Your task to perform on an android device: turn on the 24-hour format for clock Image 0: 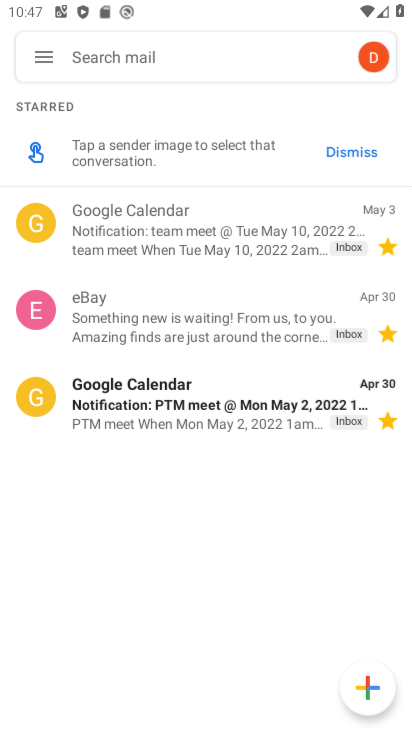
Step 0: drag from (247, 639) to (402, 412)
Your task to perform on an android device: turn on the 24-hour format for clock Image 1: 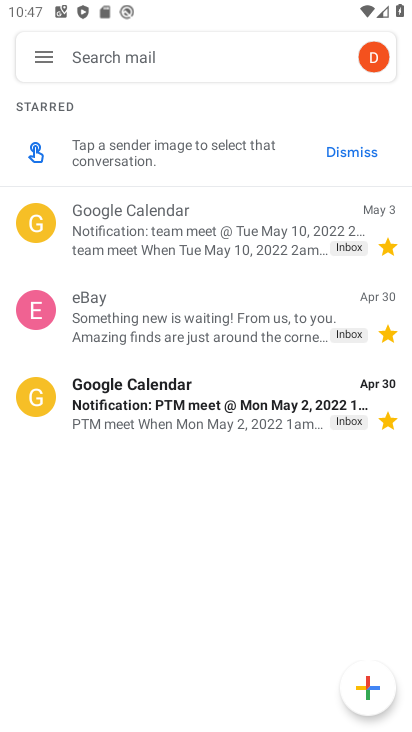
Step 1: press home button
Your task to perform on an android device: turn on the 24-hour format for clock Image 2: 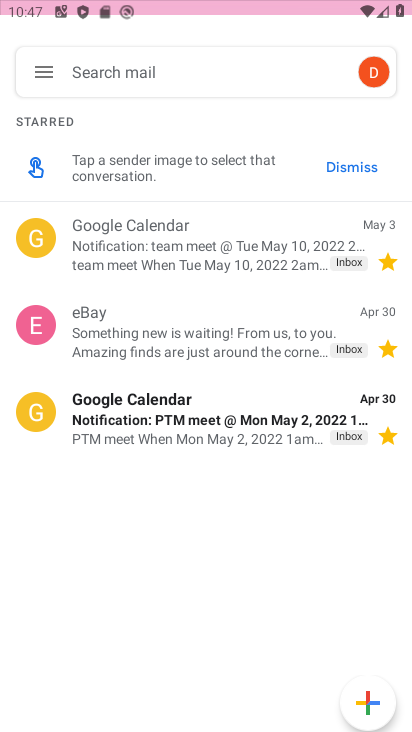
Step 2: click (402, 412)
Your task to perform on an android device: turn on the 24-hour format for clock Image 3: 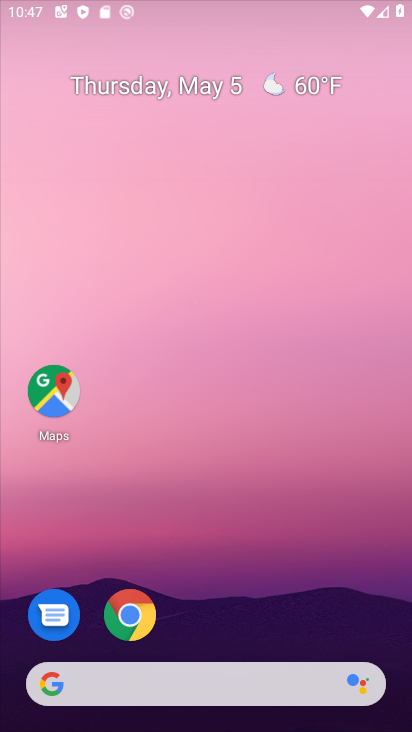
Step 3: drag from (232, 589) to (303, 102)
Your task to perform on an android device: turn on the 24-hour format for clock Image 4: 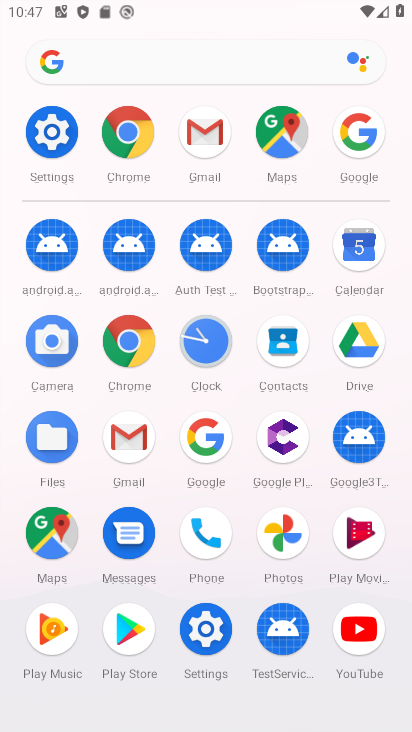
Step 4: click (200, 351)
Your task to perform on an android device: turn on the 24-hour format for clock Image 5: 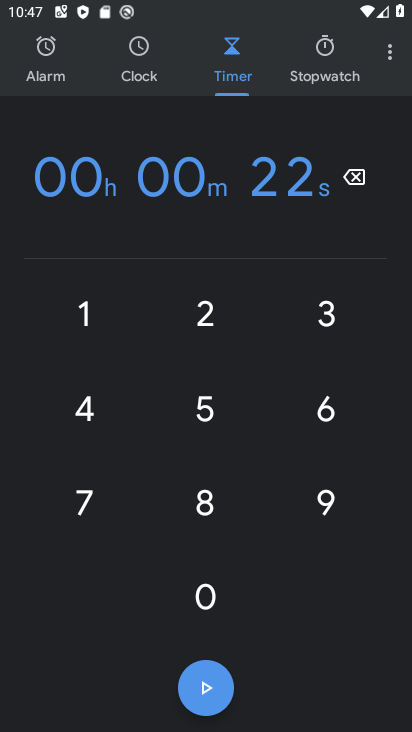
Step 5: click (379, 56)
Your task to perform on an android device: turn on the 24-hour format for clock Image 6: 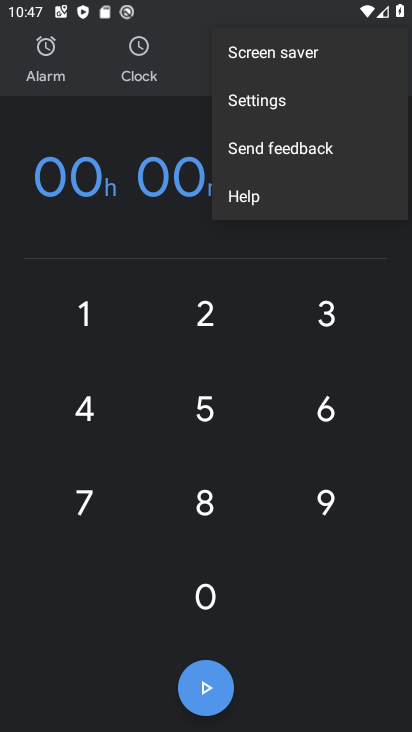
Step 6: click (280, 97)
Your task to perform on an android device: turn on the 24-hour format for clock Image 7: 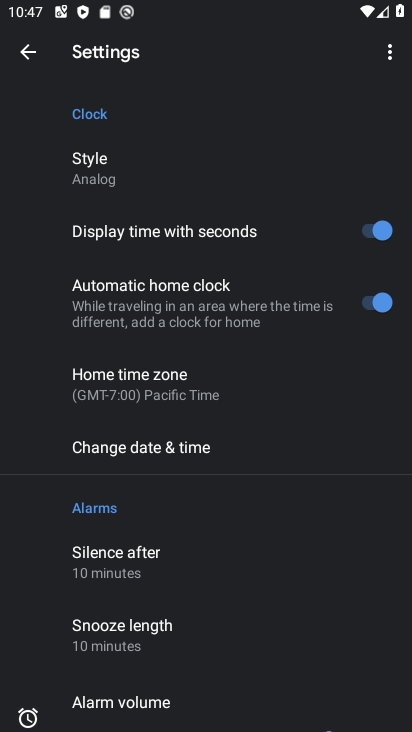
Step 7: click (164, 445)
Your task to perform on an android device: turn on the 24-hour format for clock Image 8: 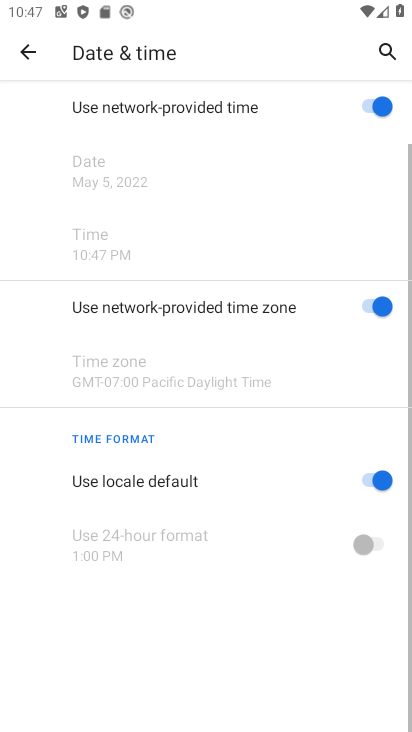
Step 8: drag from (225, 562) to (279, 212)
Your task to perform on an android device: turn on the 24-hour format for clock Image 9: 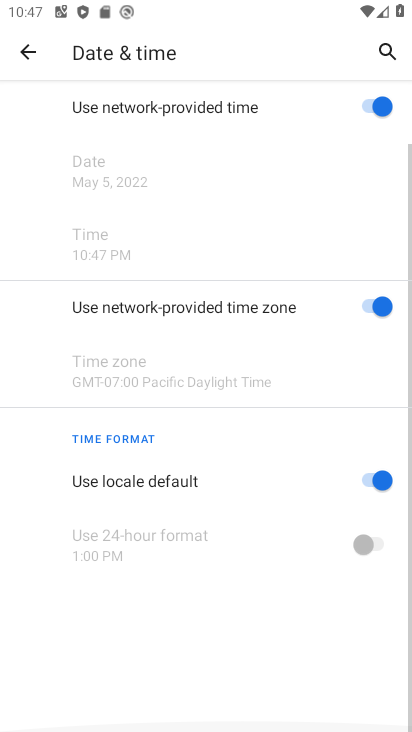
Step 9: click (374, 476)
Your task to perform on an android device: turn on the 24-hour format for clock Image 10: 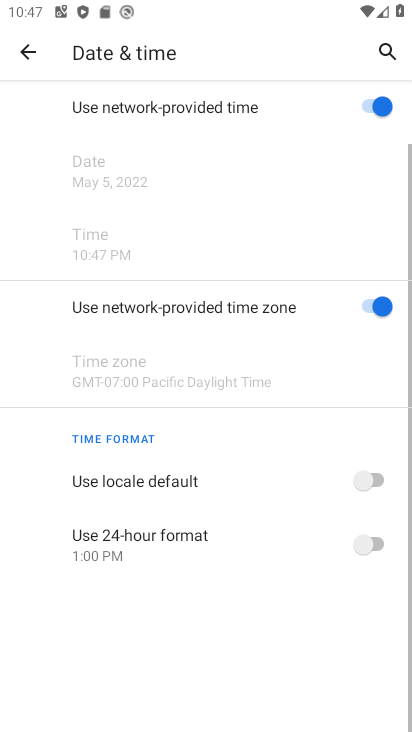
Step 10: click (363, 546)
Your task to perform on an android device: turn on the 24-hour format for clock Image 11: 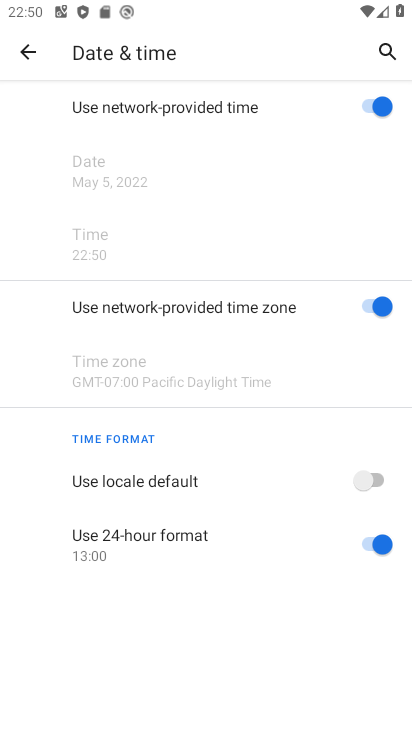
Step 11: task complete